Your task to perform on an android device: When is my next appointment? Image 0: 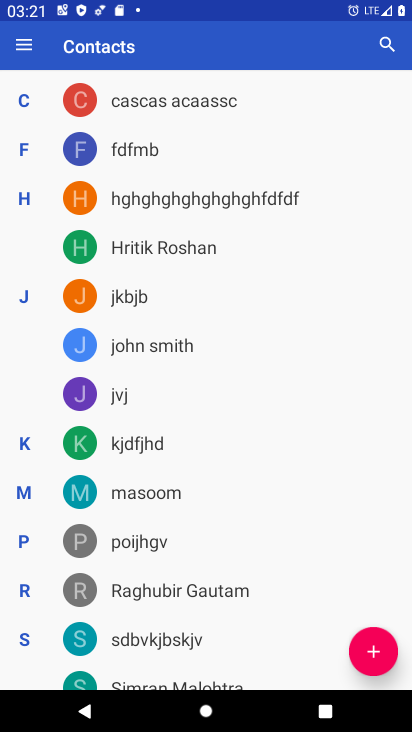
Step 0: press home button
Your task to perform on an android device: When is my next appointment? Image 1: 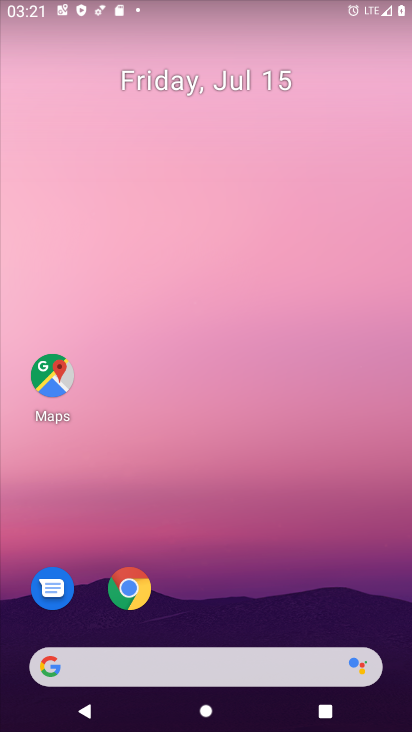
Step 1: drag from (204, 654) to (291, 66)
Your task to perform on an android device: When is my next appointment? Image 2: 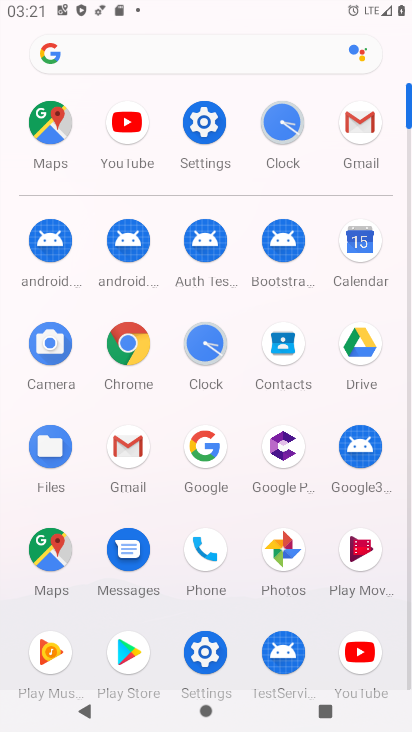
Step 2: click (361, 241)
Your task to perform on an android device: When is my next appointment? Image 3: 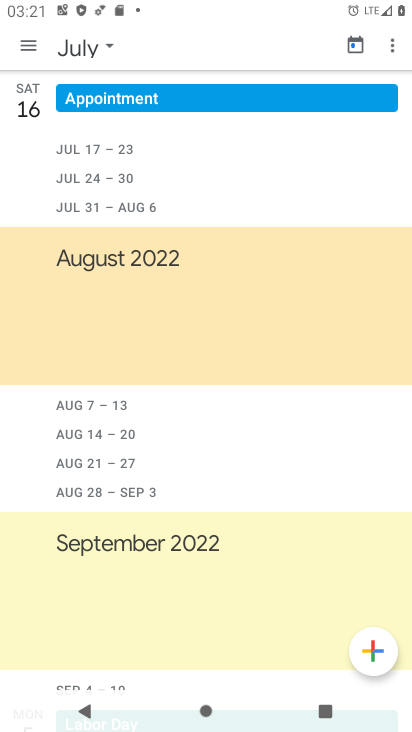
Step 3: click (354, 40)
Your task to perform on an android device: When is my next appointment? Image 4: 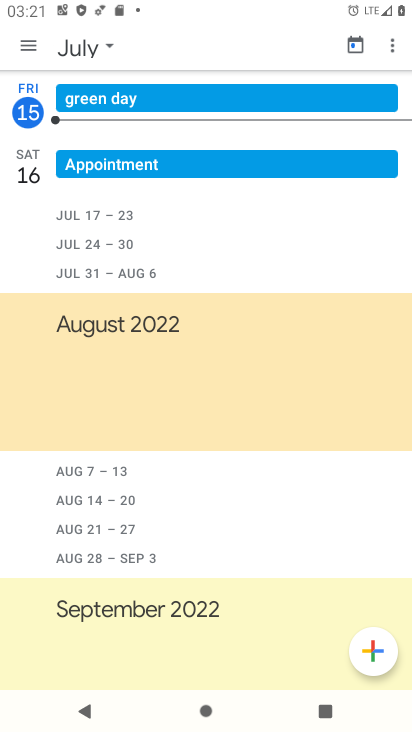
Step 4: click (110, 47)
Your task to perform on an android device: When is my next appointment? Image 5: 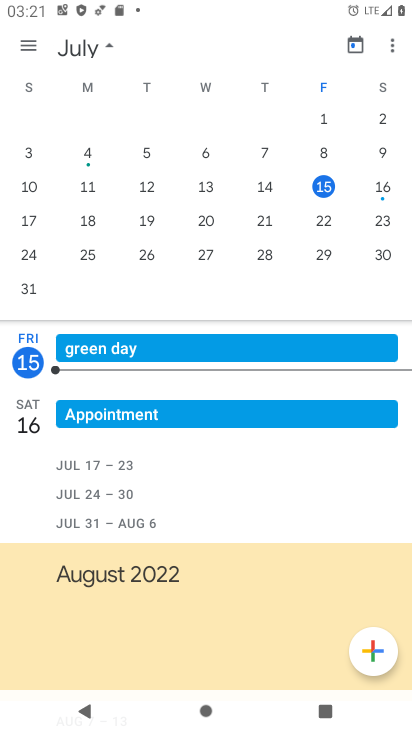
Step 5: click (380, 191)
Your task to perform on an android device: When is my next appointment? Image 6: 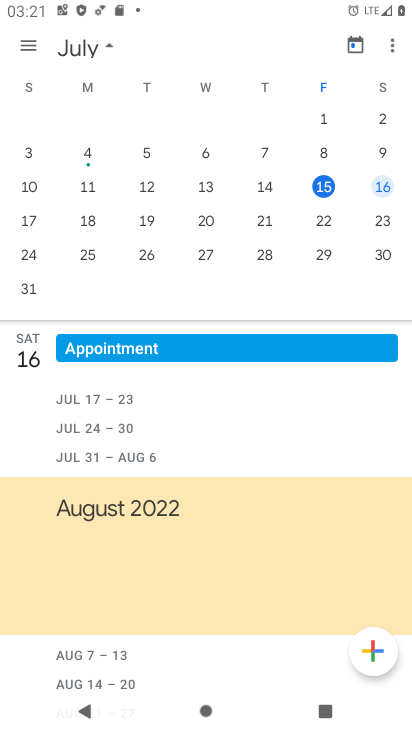
Step 6: click (32, 41)
Your task to perform on an android device: When is my next appointment? Image 7: 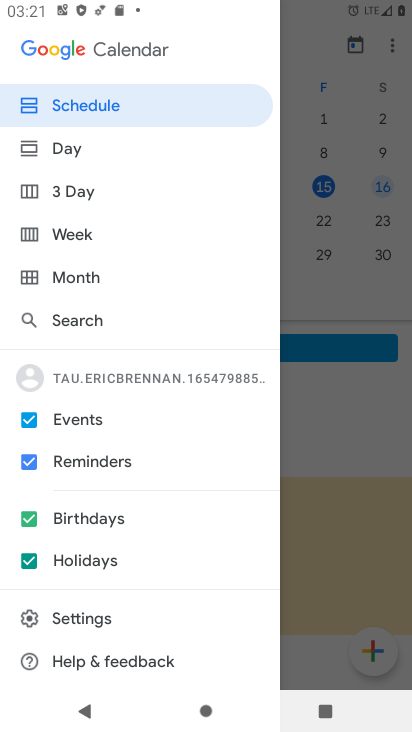
Step 7: click (55, 109)
Your task to perform on an android device: When is my next appointment? Image 8: 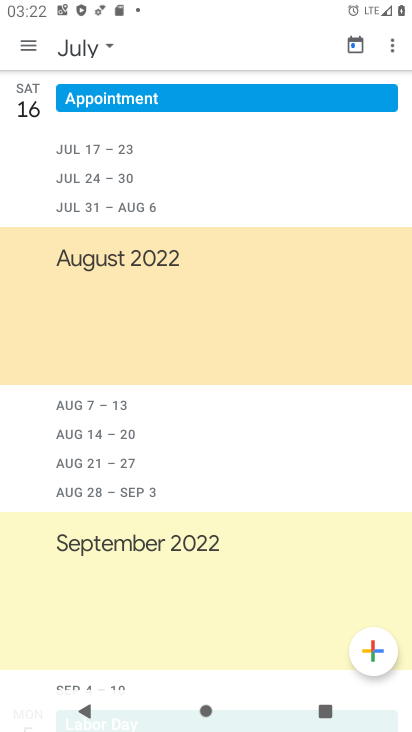
Step 8: task complete